Your task to perform on an android device: search for starred emails in the gmail app Image 0: 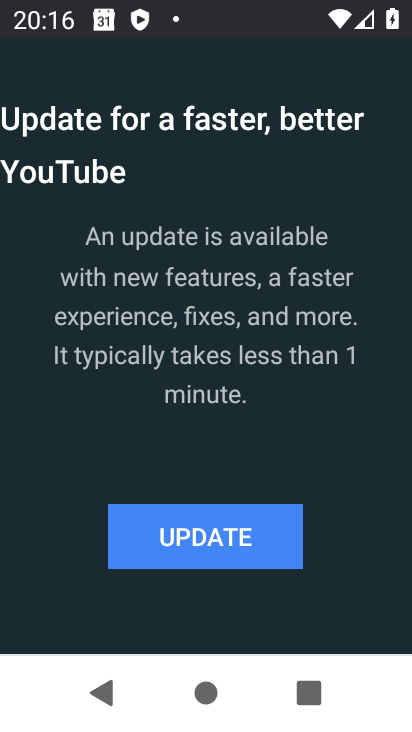
Step 0: press home button
Your task to perform on an android device: search for starred emails in the gmail app Image 1: 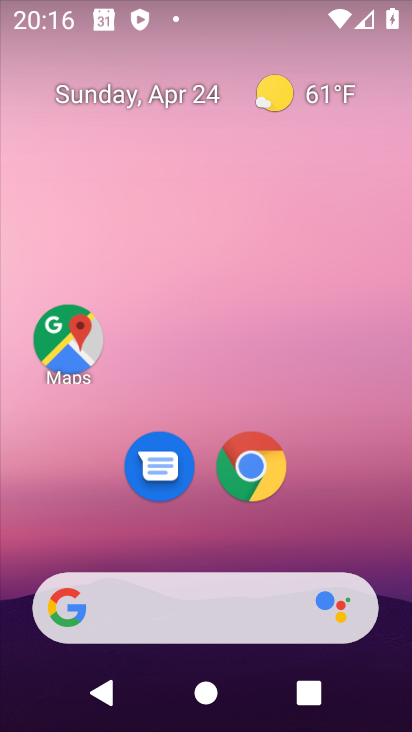
Step 1: drag from (178, 546) to (212, 8)
Your task to perform on an android device: search for starred emails in the gmail app Image 2: 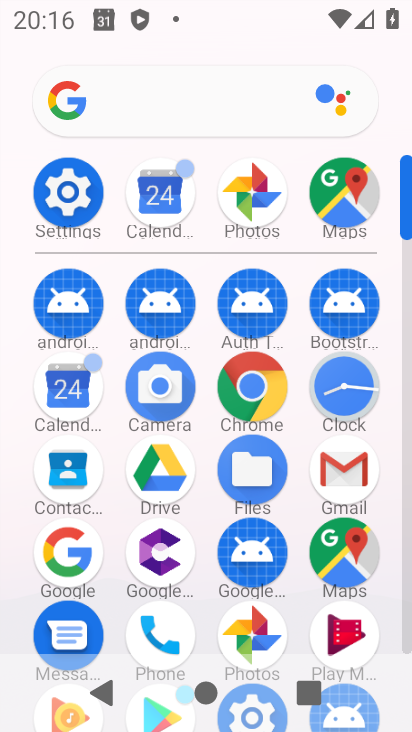
Step 2: click (346, 474)
Your task to perform on an android device: search for starred emails in the gmail app Image 3: 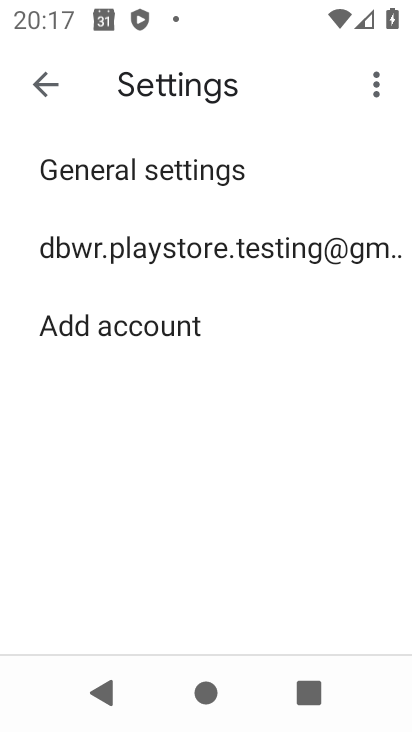
Step 3: click (41, 82)
Your task to perform on an android device: search for starred emails in the gmail app Image 4: 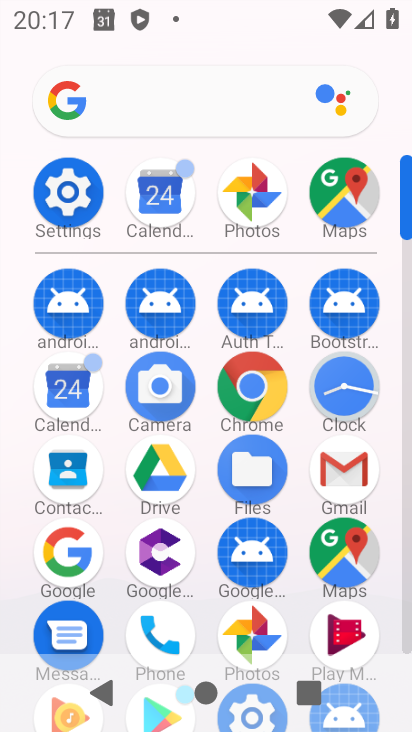
Step 4: click (354, 478)
Your task to perform on an android device: search for starred emails in the gmail app Image 5: 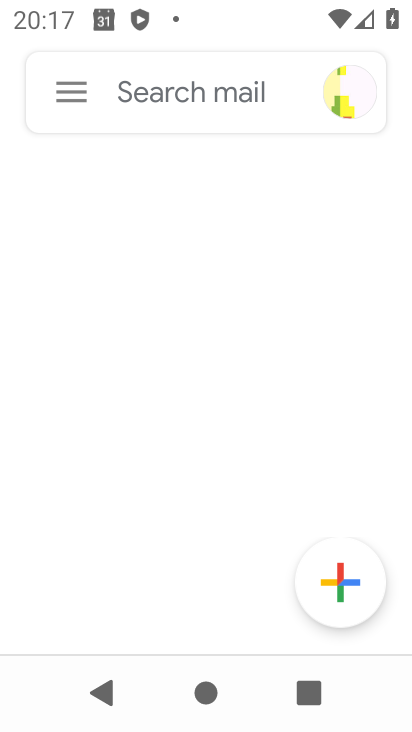
Step 5: click (60, 90)
Your task to perform on an android device: search for starred emails in the gmail app Image 6: 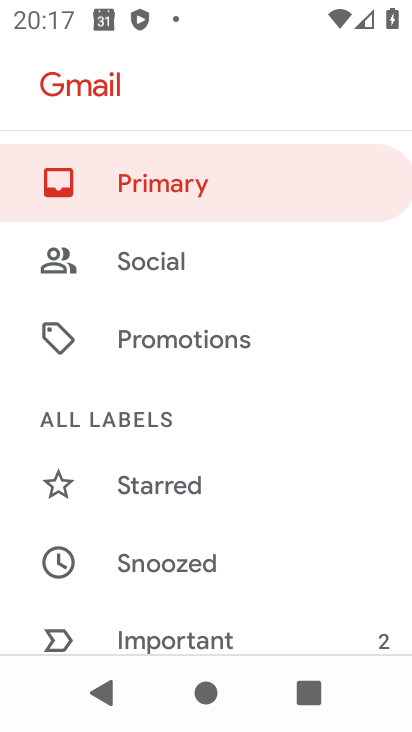
Step 6: click (155, 482)
Your task to perform on an android device: search for starred emails in the gmail app Image 7: 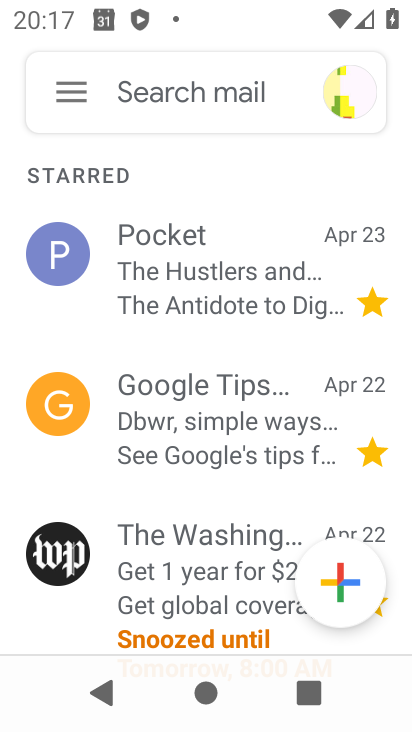
Step 7: task complete